Your task to perform on an android device: When is my next appointment? Image 0: 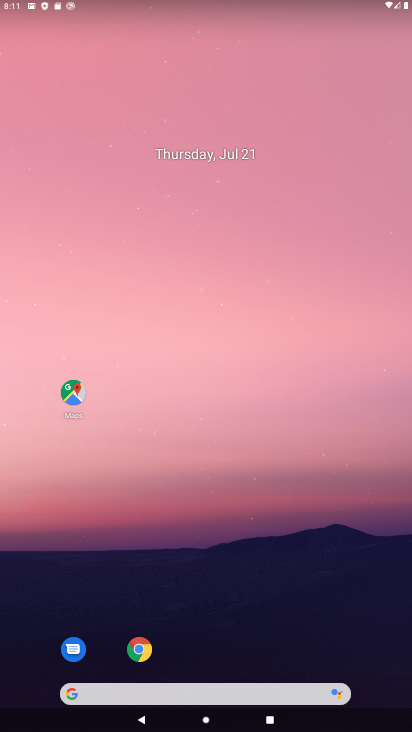
Step 0: click (253, 155)
Your task to perform on an android device: When is my next appointment? Image 1: 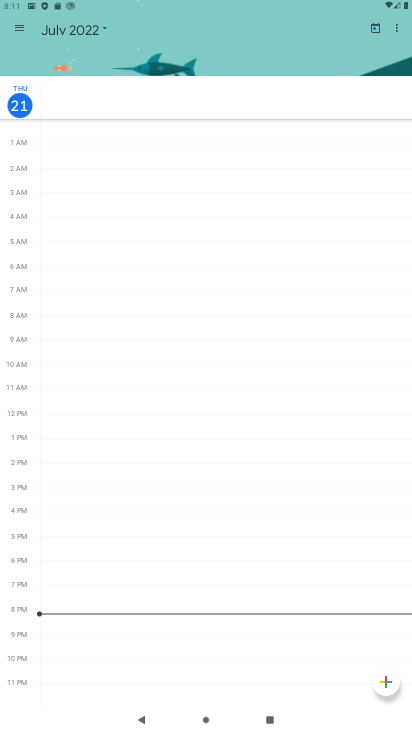
Step 1: task complete